Your task to perform on an android device: show emergency info Image 0: 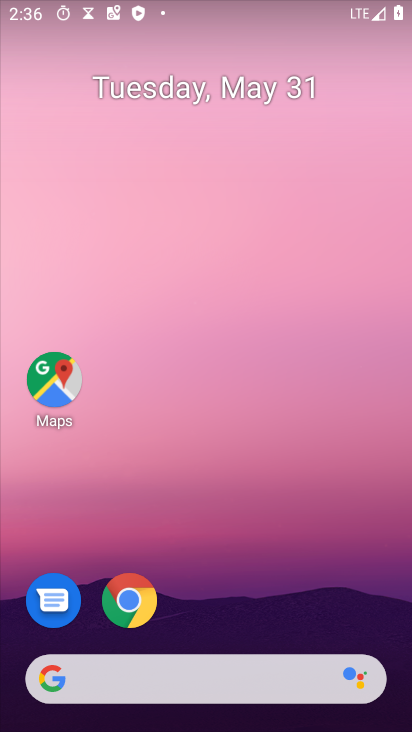
Step 0: press home button
Your task to perform on an android device: show emergency info Image 1: 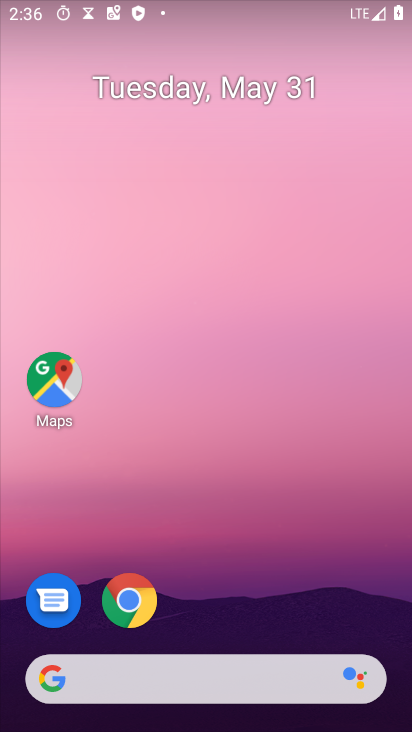
Step 1: press home button
Your task to perform on an android device: show emergency info Image 2: 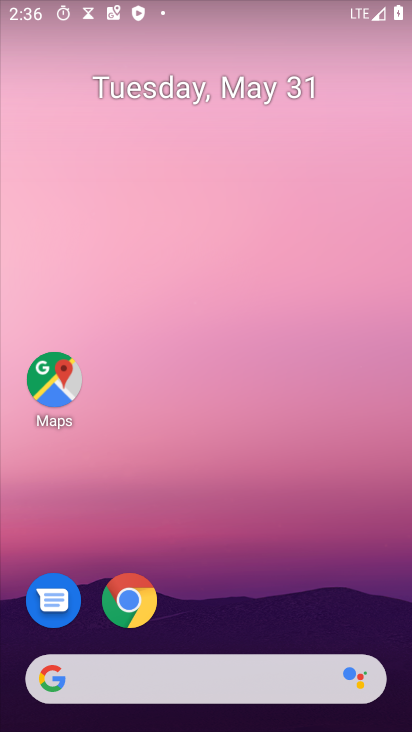
Step 2: drag from (225, 541) to (247, 297)
Your task to perform on an android device: show emergency info Image 3: 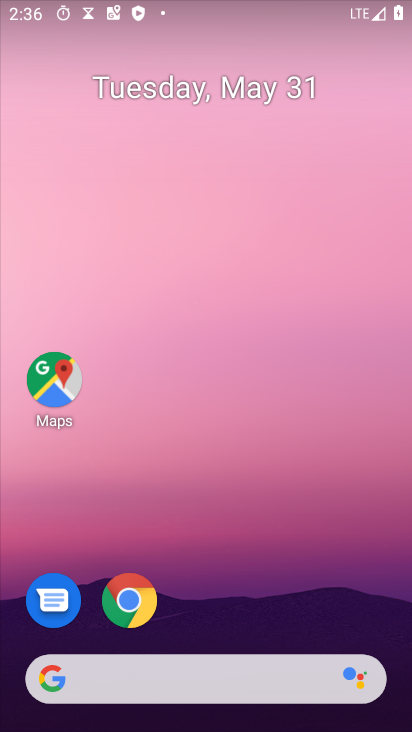
Step 3: drag from (221, 631) to (245, 186)
Your task to perform on an android device: show emergency info Image 4: 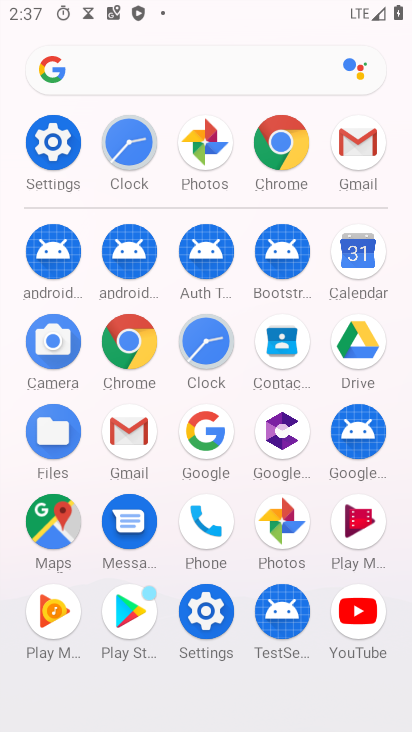
Step 4: click (201, 601)
Your task to perform on an android device: show emergency info Image 5: 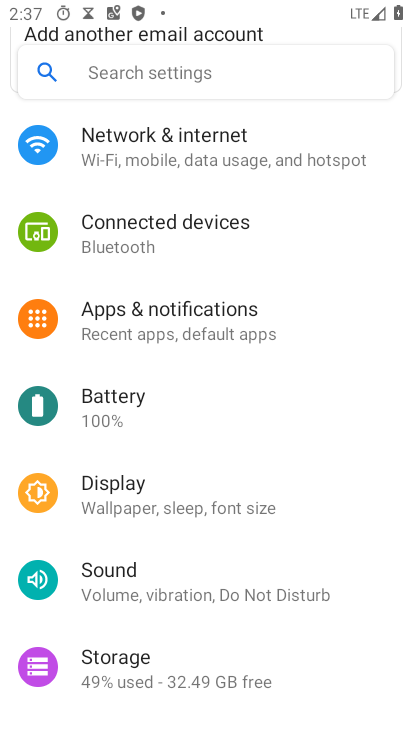
Step 5: drag from (200, 671) to (217, 192)
Your task to perform on an android device: show emergency info Image 6: 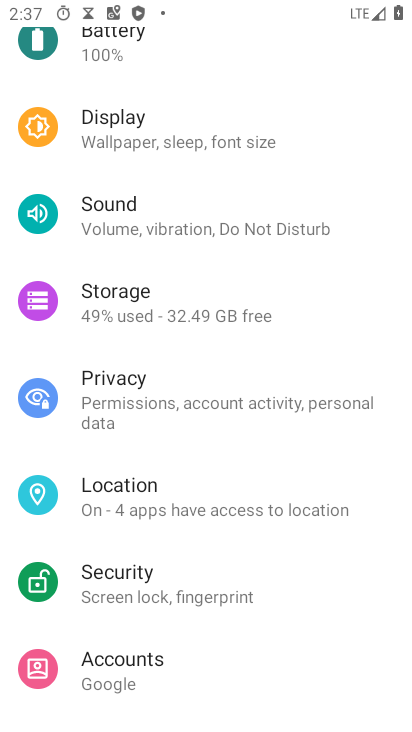
Step 6: drag from (225, 271) to (231, 83)
Your task to perform on an android device: show emergency info Image 7: 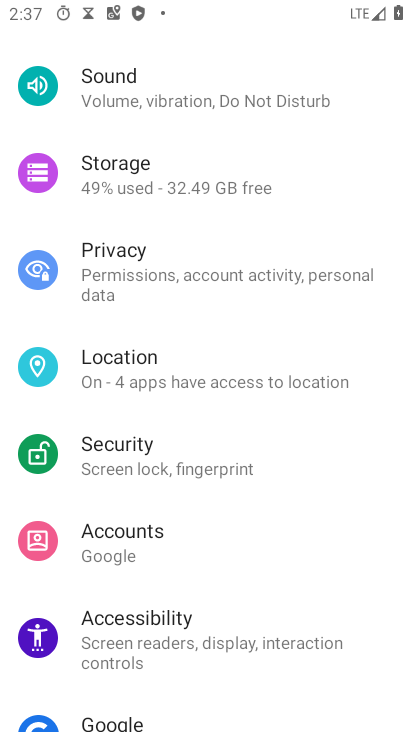
Step 7: drag from (203, 443) to (214, 62)
Your task to perform on an android device: show emergency info Image 8: 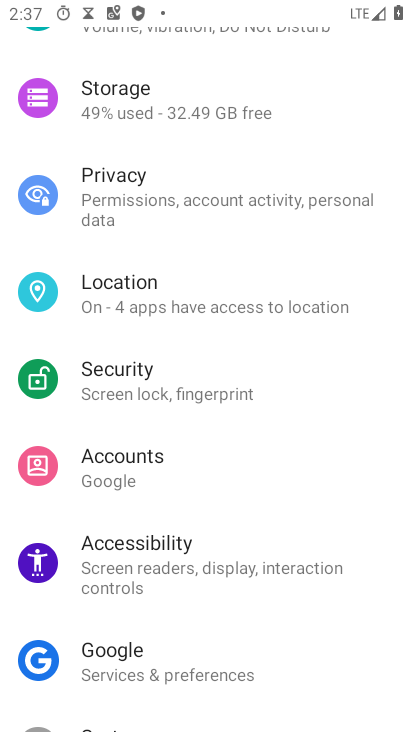
Step 8: drag from (204, 671) to (229, 188)
Your task to perform on an android device: show emergency info Image 9: 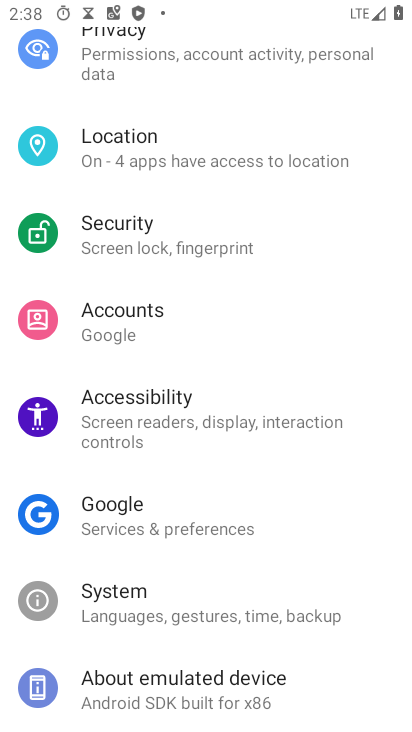
Step 9: click (202, 688)
Your task to perform on an android device: show emergency info Image 10: 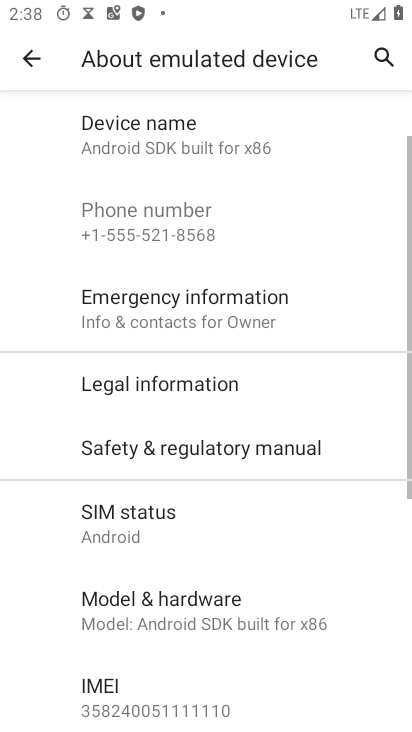
Step 10: click (226, 288)
Your task to perform on an android device: show emergency info Image 11: 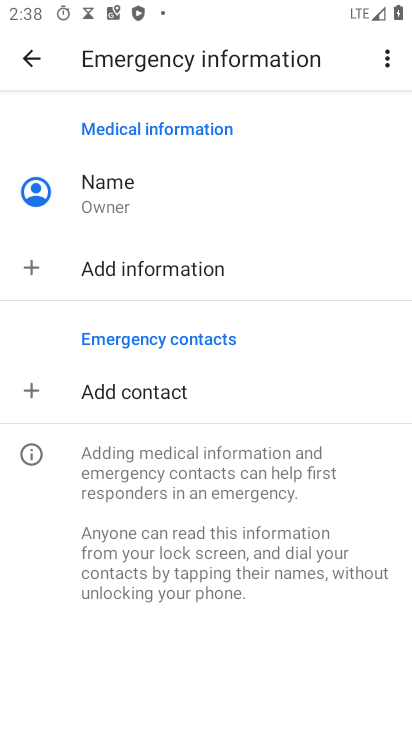
Step 11: task complete